Your task to perform on an android device: star an email in the gmail app Image 0: 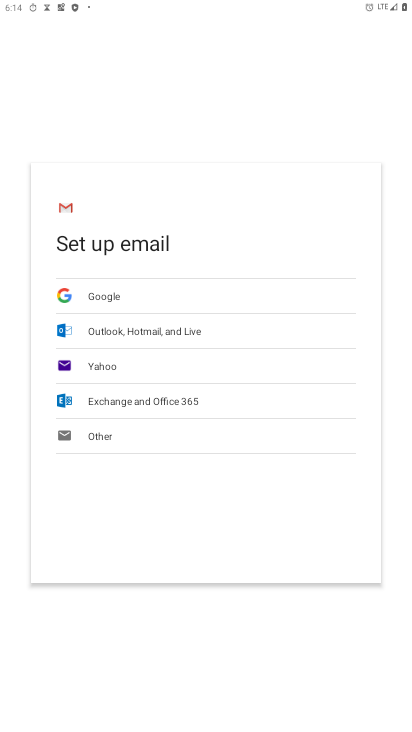
Step 0: press home button
Your task to perform on an android device: star an email in the gmail app Image 1: 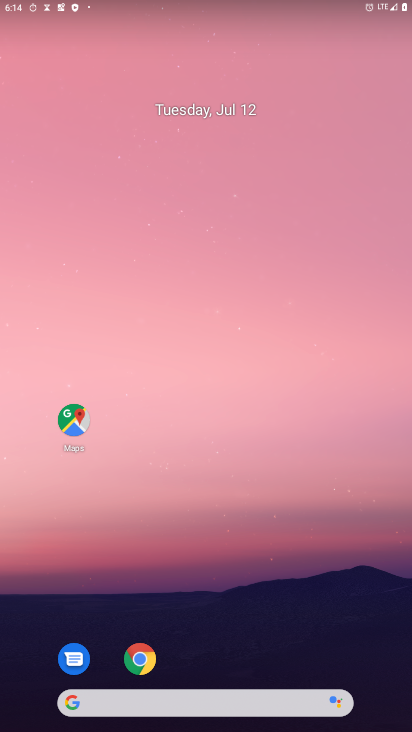
Step 1: drag from (270, 654) to (236, 157)
Your task to perform on an android device: star an email in the gmail app Image 2: 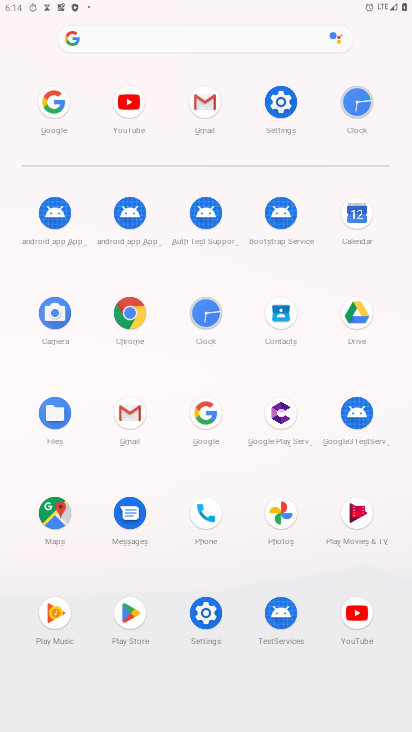
Step 2: click (216, 124)
Your task to perform on an android device: star an email in the gmail app Image 3: 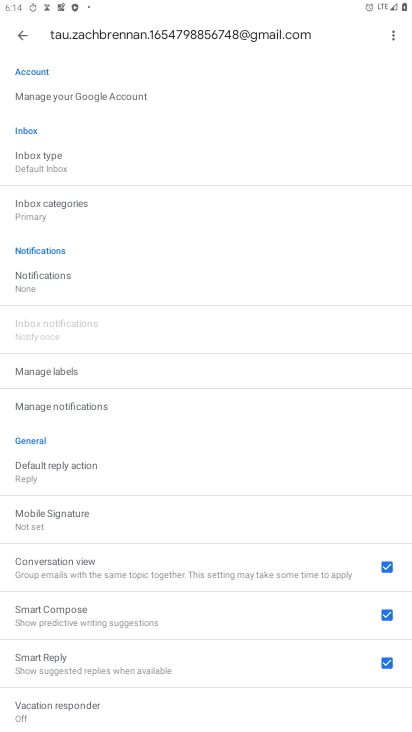
Step 3: click (22, 30)
Your task to perform on an android device: star an email in the gmail app Image 4: 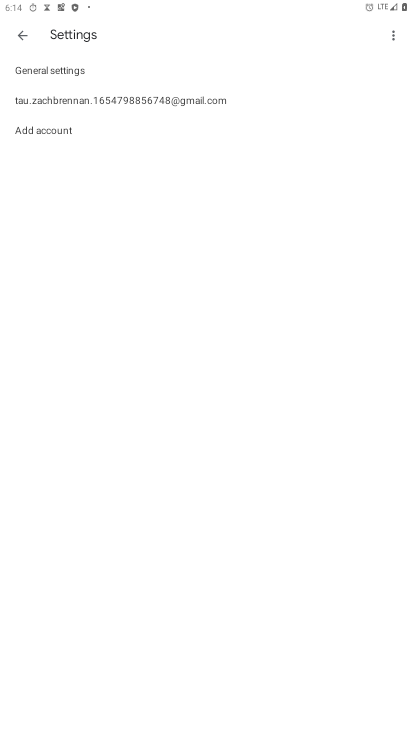
Step 4: click (22, 30)
Your task to perform on an android device: star an email in the gmail app Image 5: 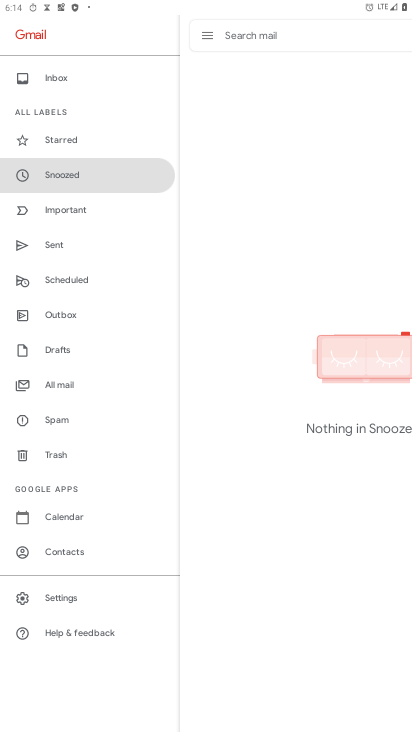
Step 5: click (50, 382)
Your task to perform on an android device: star an email in the gmail app Image 6: 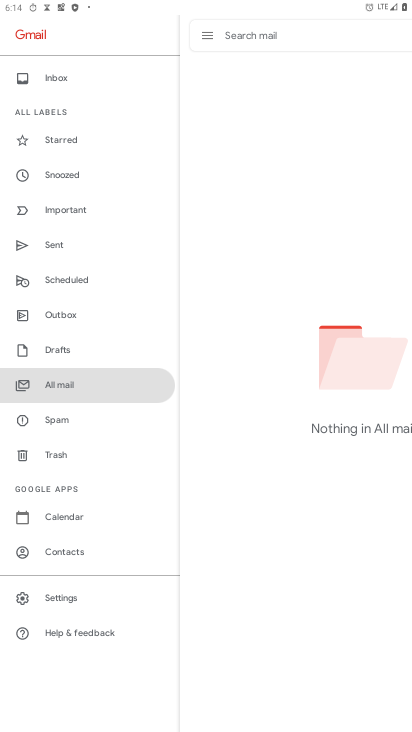
Step 6: task complete